Your task to perform on an android device: turn off wifi Image 0: 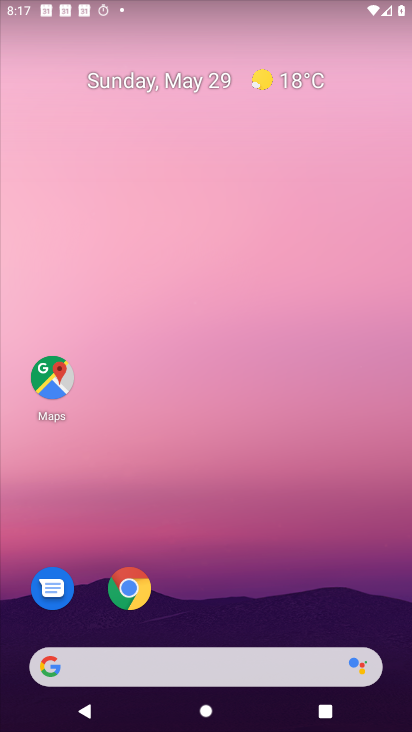
Step 0: drag from (181, 507) to (192, 179)
Your task to perform on an android device: turn off wifi Image 1: 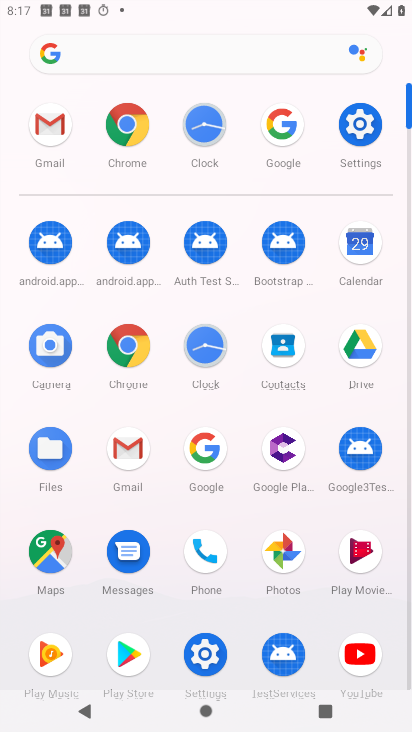
Step 1: click (369, 123)
Your task to perform on an android device: turn off wifi Image 2: 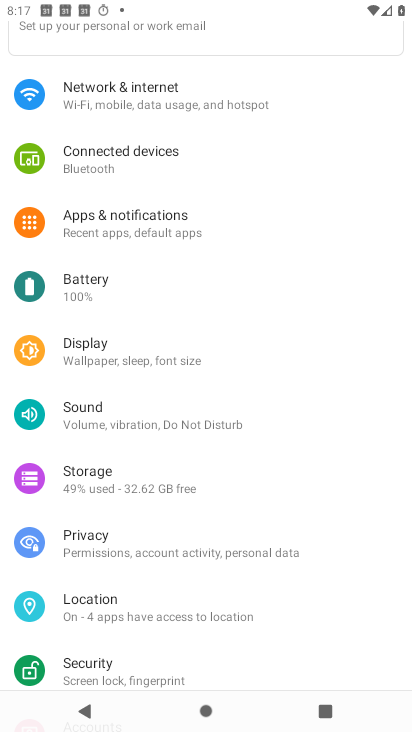
Step 2: click (153, 84)
Your task to perform on an android device: turn off wifi Image 3: 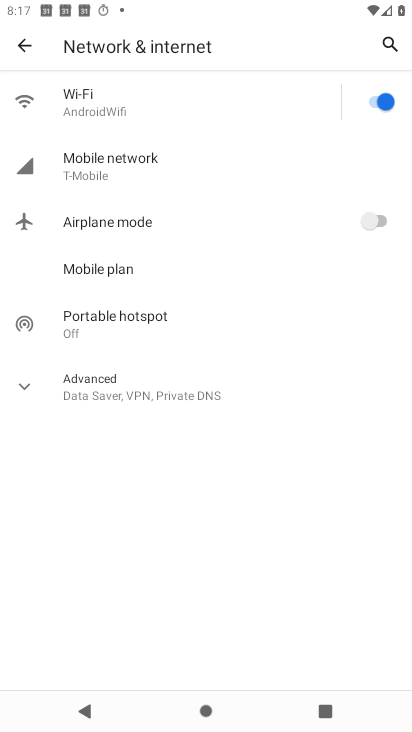
Step 3: click (386, 102)
Your task to perform on an android device: turn off wifi Image 4: 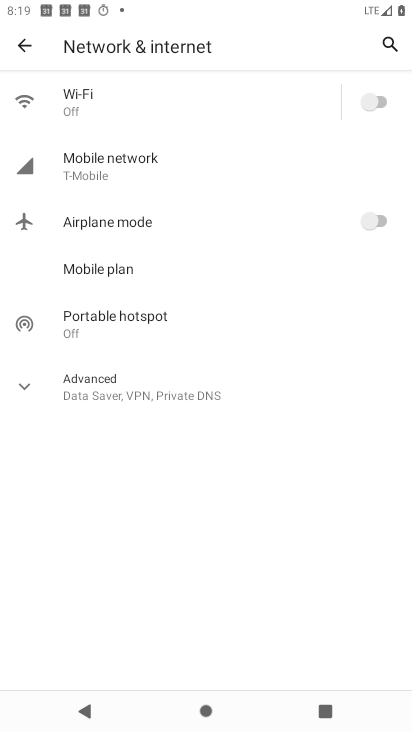
Step 4: task complete